Your task to perform on an android device: open the mobile data screen to see how much data has been used Image 0: 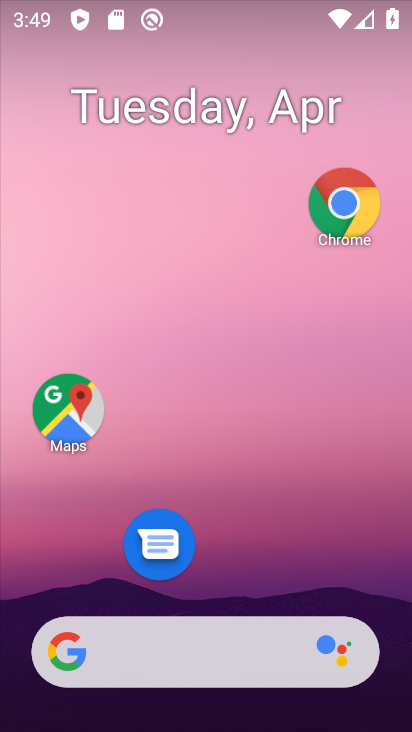
Step 0: drag from (238, 588) to (312, 18)
Your task to perform on an android device: open the mobile data screen to see how much data has been used Image 1: 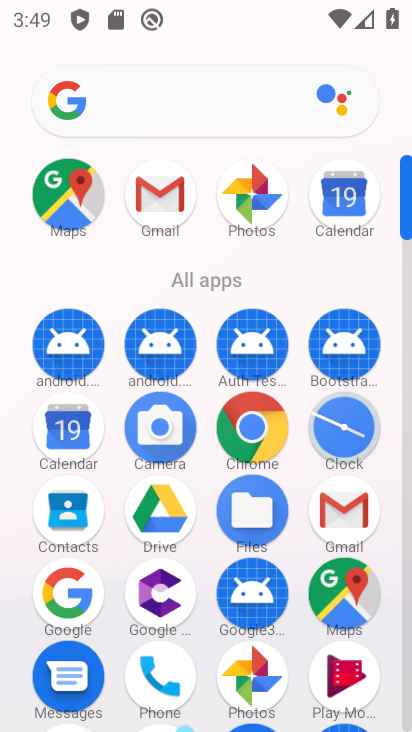
Step 1: drag from (208, 586) to (261, 103)
Your task to perform on an android device: open the mobile data screen to see how much data has been used Image 2: 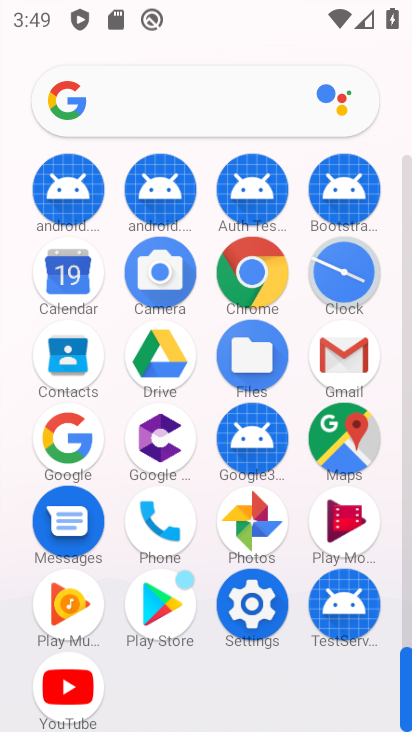
Step 2: click (249, 607)
Your task to perform on an android device: open the mobile data screen to see how much data has been used Image 3: 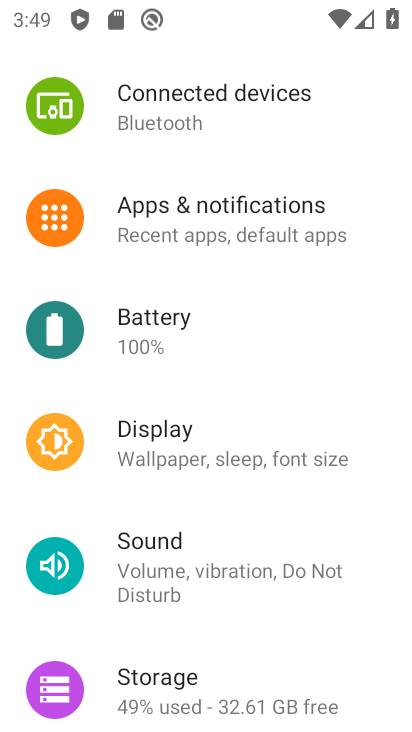
Step 3: drag from (264, 200) to (183, 721)
Your task to perform on an android device: open the mobile data screen to see how much data has been used Image 4: 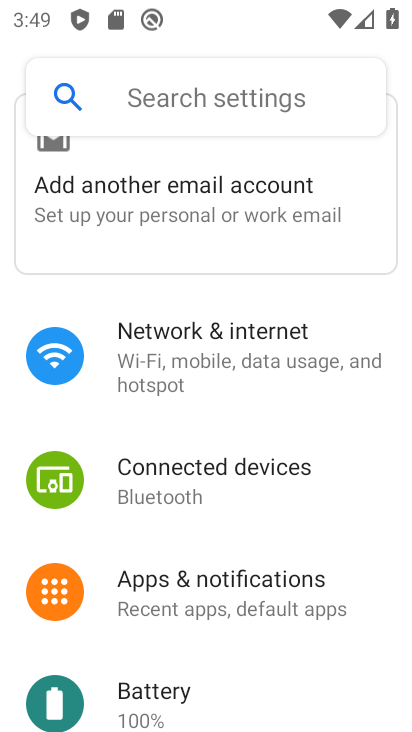
Step 4: click (194, 386)
Your task to perform on an android device: open the mobile data screen to see how much data has been used Image 5: 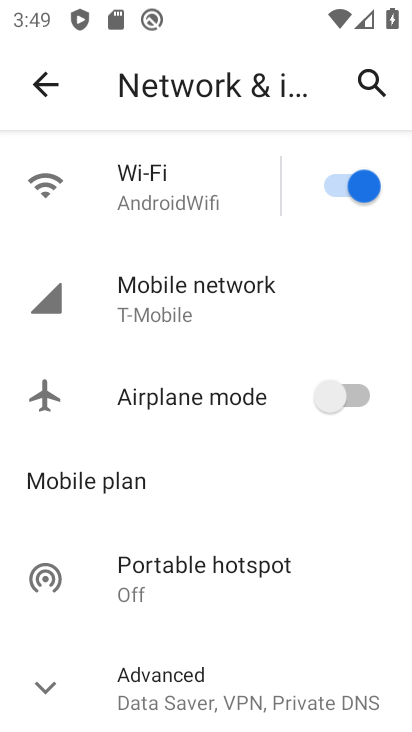
Step 5: click (164, 307)
Your task to perform on an android device: open the mobile data screen to see how much data has been used Image 6: 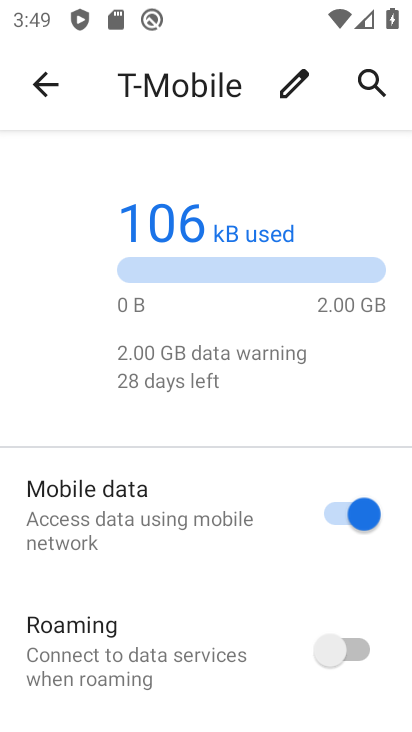
Step 6: task complete